Your task to perform on an android device: change your default location settings in chrome Image 0: 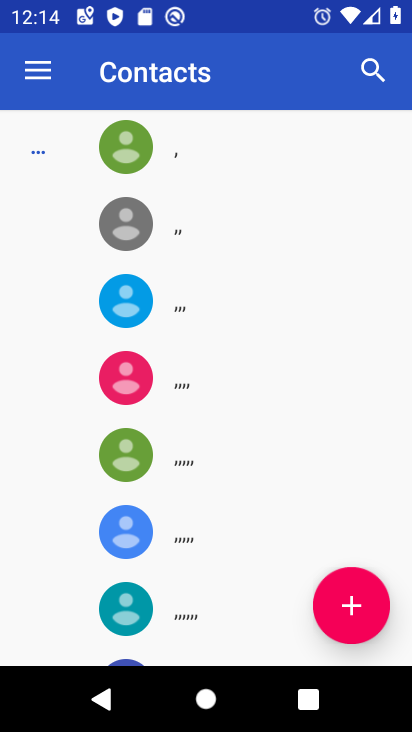
Step 0: press back button
Your task to perform on an android device: change your default location settings in chrome Image 1: 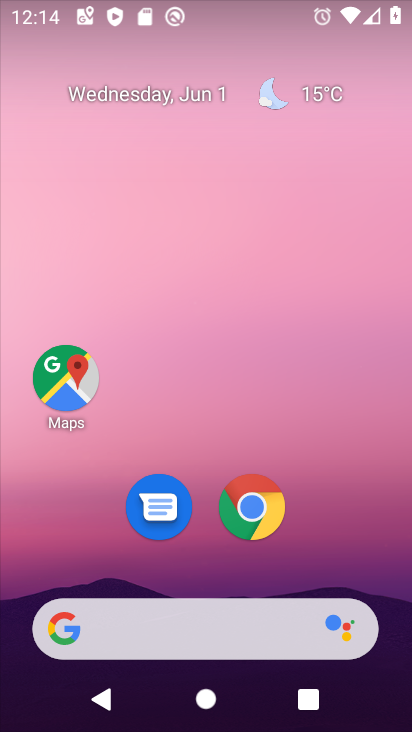
Step 1: click (253, 508)
Your task to perform on an android device: change your default location settings in chrome Image 2: 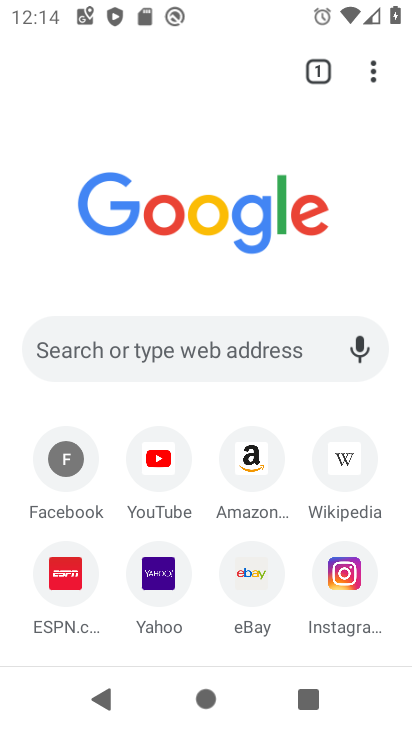
Step 2: click (371, 74)
Your task to perform on an android device: change your default location settings in chrome Image 3: 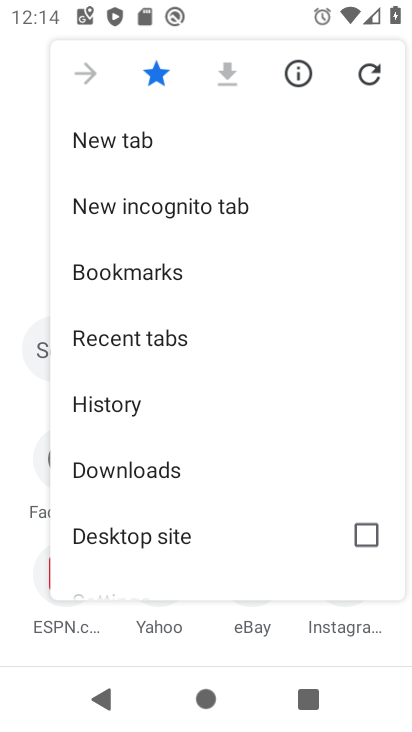
Step 3: drag from (178, 505) to (236, 423)
Your task to perform on an android device: change your default location settings in chrome Image 4: 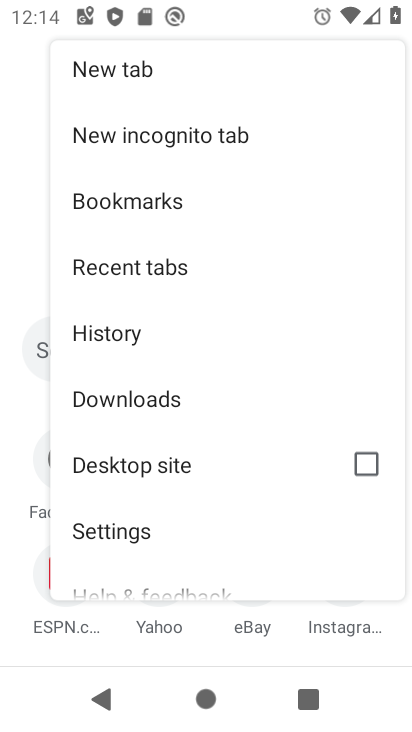
Step 4: click (128, 538)
Your task to perform on an android device: change your default location settings in chrome Image 5: 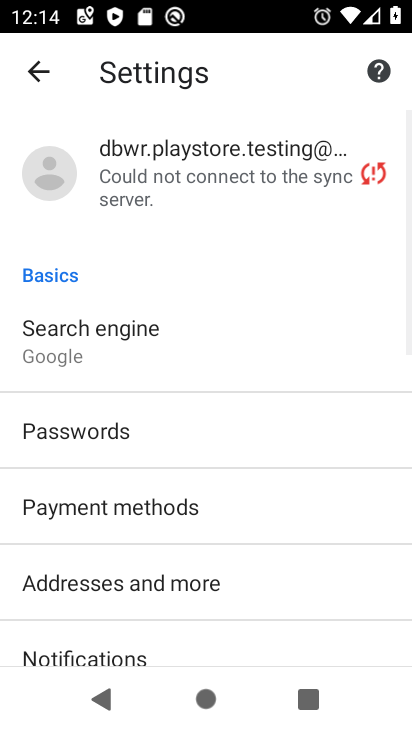
Step 5: drag from (177, 520) to (221, 442)
Your task to perform on an android device: change your default location settings in chrome Image 6: 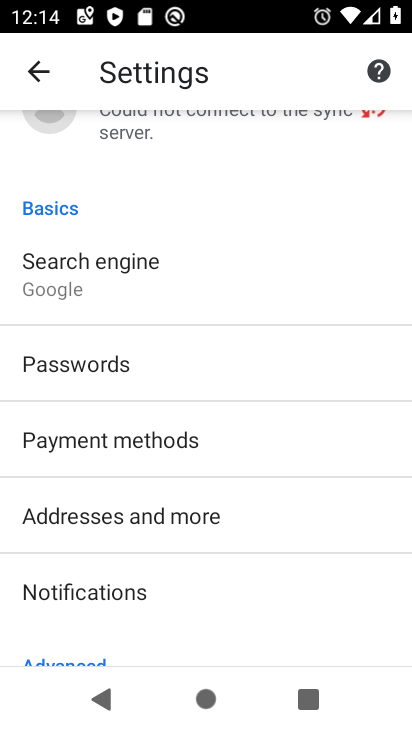
Step 6: drag from (168, 569) to (226, 486)
Your task to perform on an android device: change your default location settings in chrome Image 7: 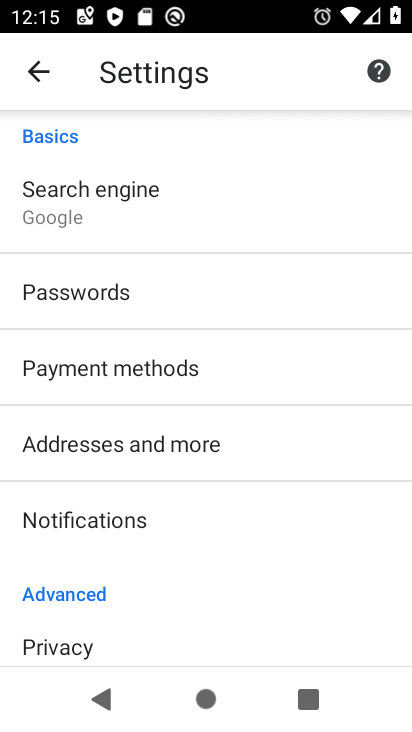
Step 7: drag from (190, 566) to (249, 474)
Your task to perform on an android device: change your default location settings in chrome Image 8: 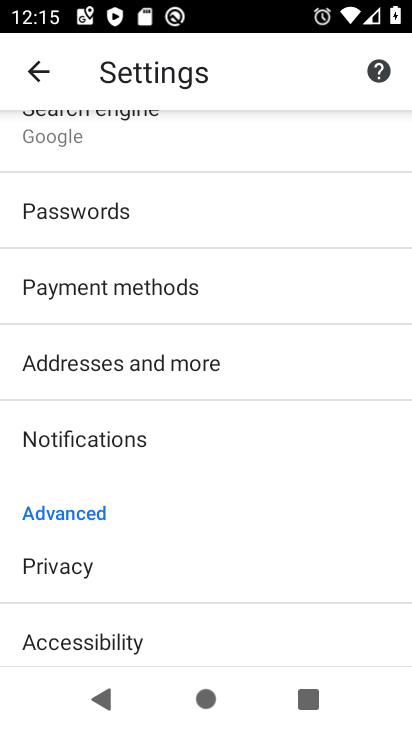
Step 8: drag from (183, 578) to (256, 479)
Your task to perform on an android device: change your default location settings in chrome Image 9: 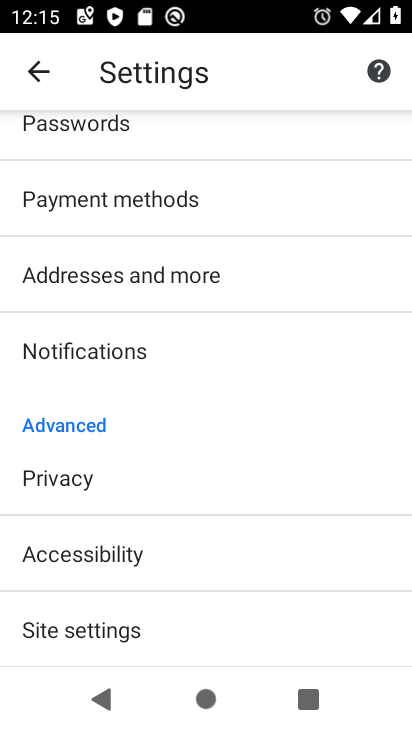
Step 9: click (89, 630)
Your task to perform on an android device: change your default location settings in chrome Image 10: 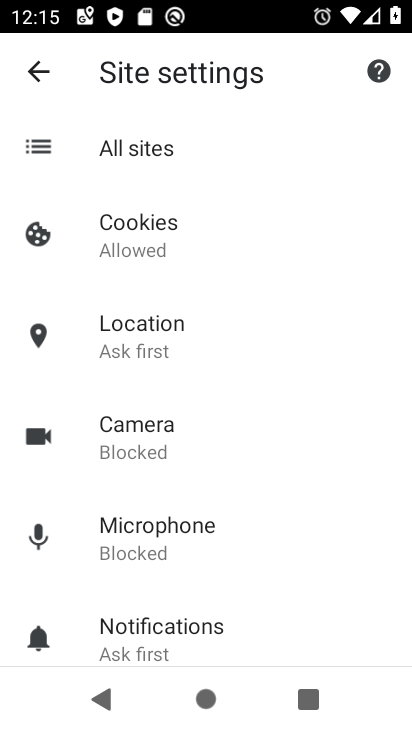
Step 10: drag from (156, 563) to (203, 487)
Your task to perform on an android device: change your default location settings in chrome Image 11: 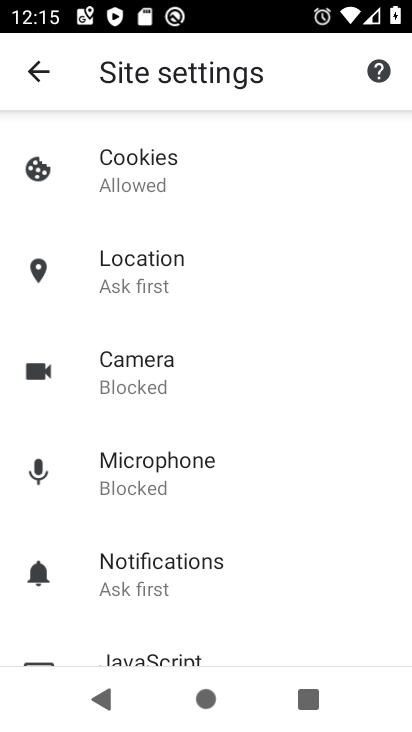
Step 11: click (152, 280)
Your task to perform on an android device: change your default location settings in chrome Image 12: 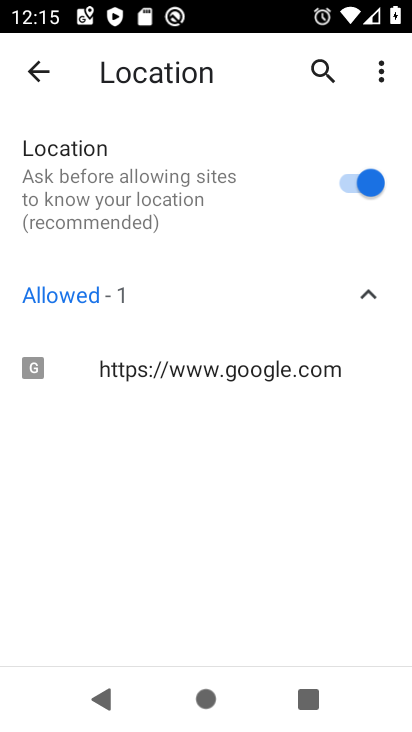
Step 12: task complete